Your task to perform on an android device: set an alarm Image 0: 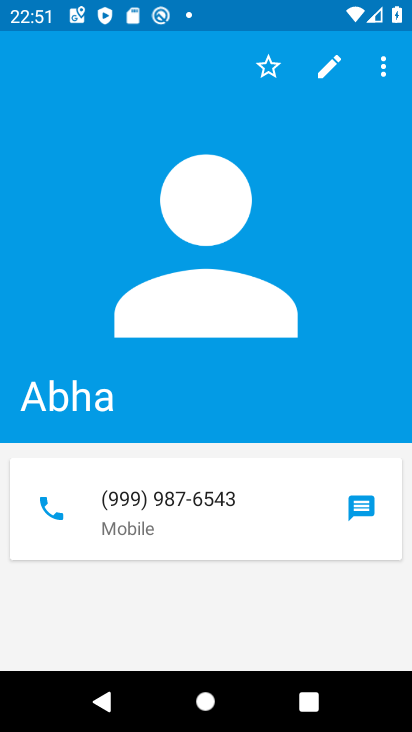
Step 0: press home button
Your task to perform on an android device: set an alarm Image 1: 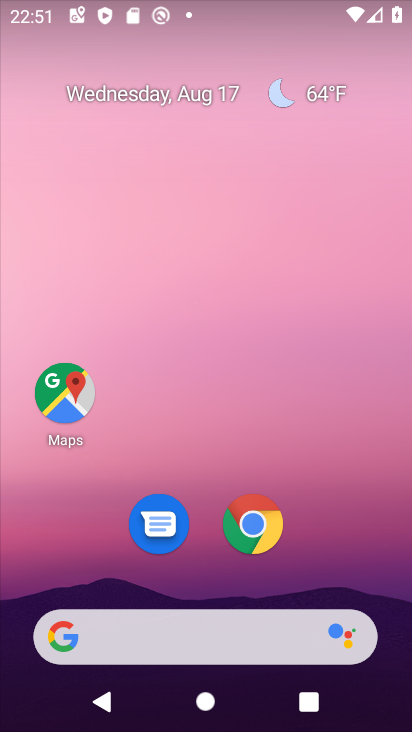
Step 1: click (330, 542)
Your task to perform on an android device: set an alarm Image 2: 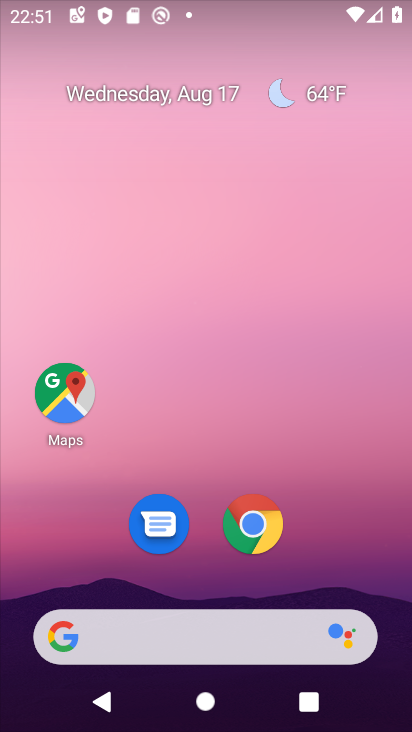
Step 2: drag from (339, 394) to (393, 43)
Your task to perform on an android device: set an alarm Image 3: 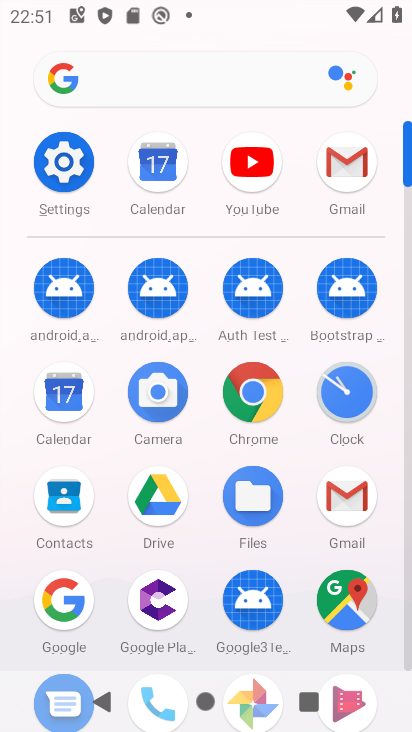
Step 3: click (349, 379)
Your task to perform on an android device: set an alarm Image 4: 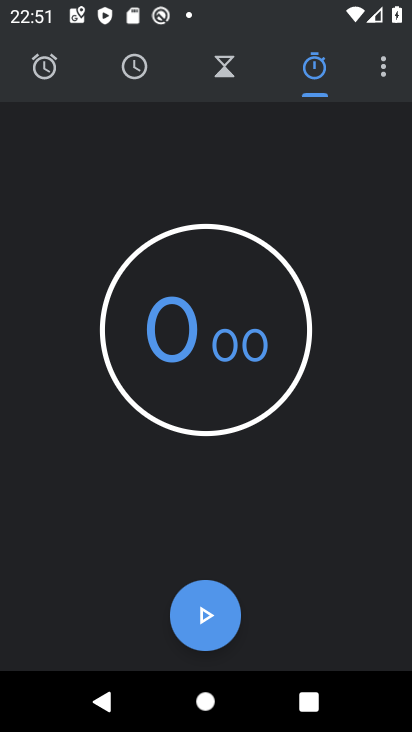
Step 4: click (41, 73)
Your task to perform on an android device: set an alarm Image 5: 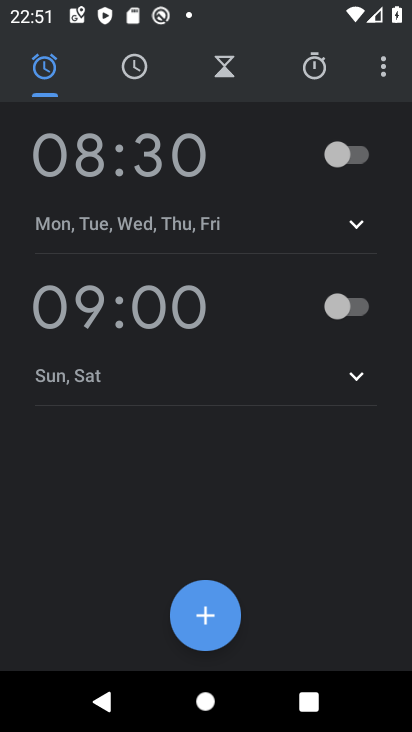
Step 5: click (198, 616)
Your task to perform on an android device: set an alarm Image 6: 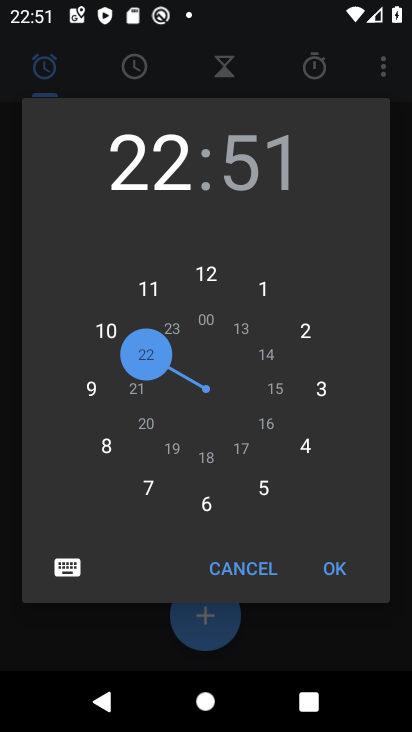
Step 6: click (270, 164)
Your task to perform on an android device: set an alarm Image 7: 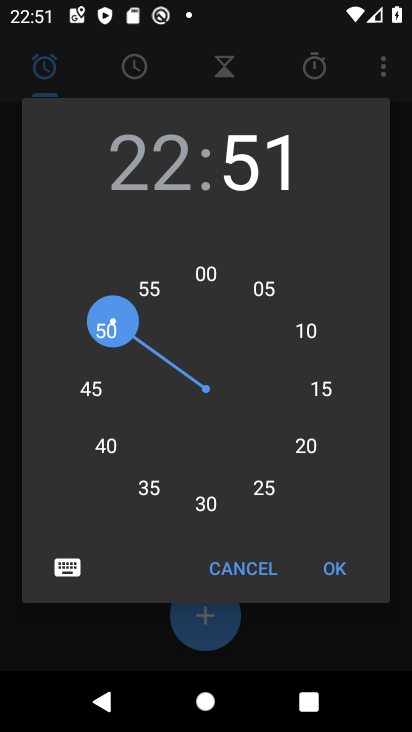
Step 7: click (211, 277)
Your task to perform on an android device: set an alarm Image 8: 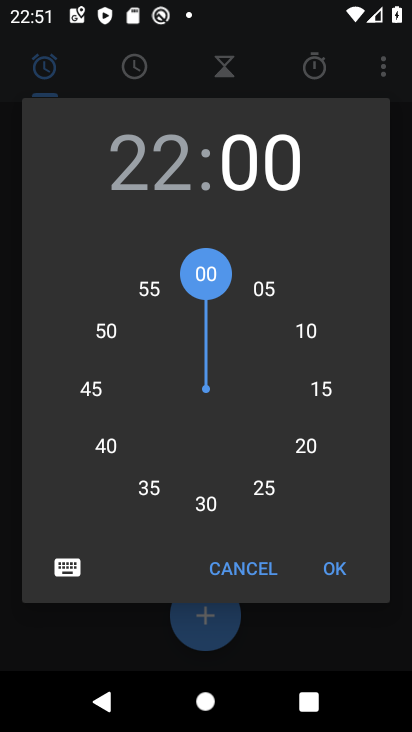
Step 8: click (329, 568)
Your task to perform on an android device: set an alarm Image 9: 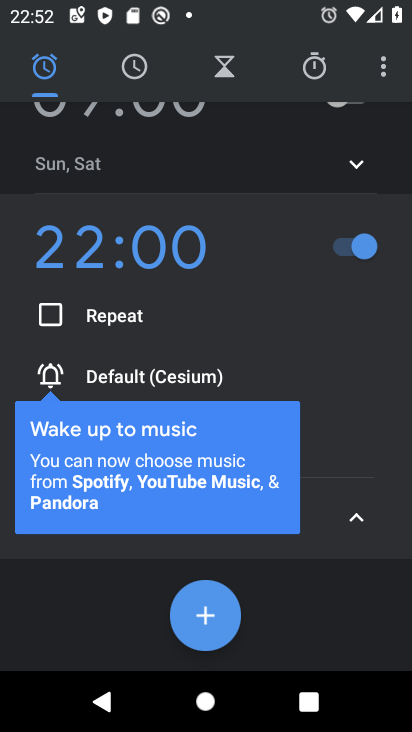
Step 9: task complete